Your task to perform on an android device: clear history in the chrome app Image 0: 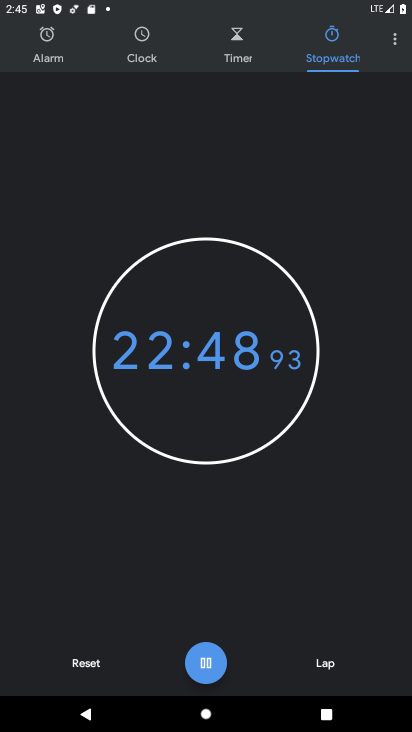
Step 0: press home button
Your task to perform on an android device: clear history in the chrome app Image 1: 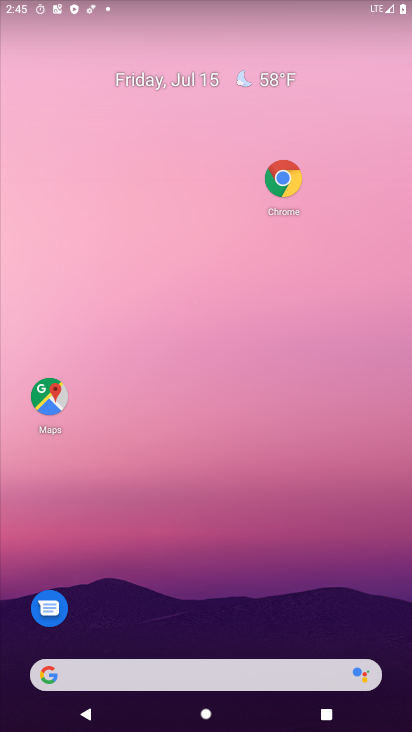
Step 1: drag from (277, 597) to (215, 96)
Your task to perform on an android device: clear history in the chrome app Image 2: 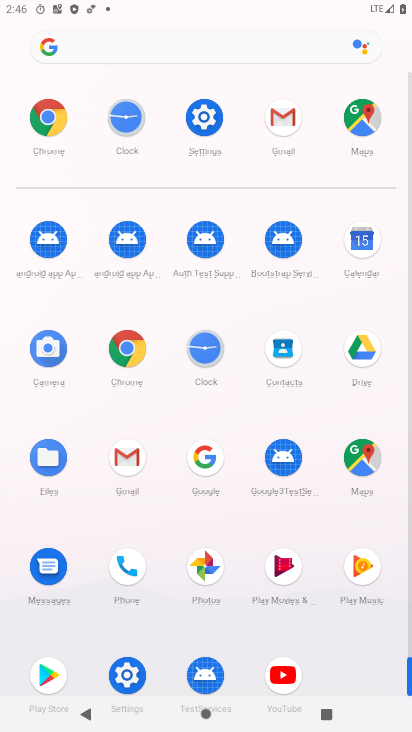
Step 2: click (46, 118)
Your task to perform on an android device: clear history in the chrome app Image 3: 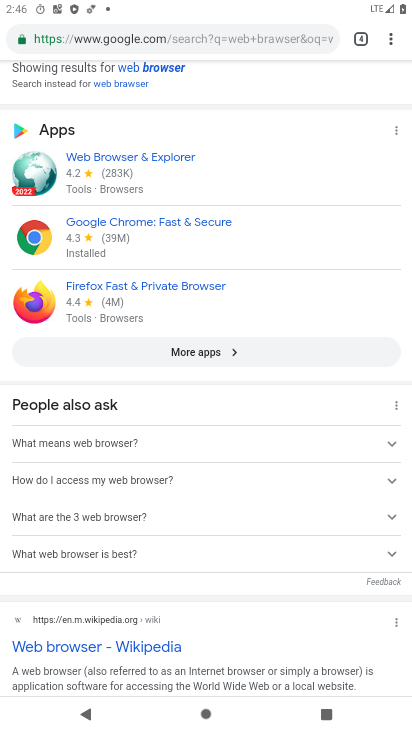
Step 3: click (389, 34)
Your task to perform on an android device: clear history in the chrome app Image 4: 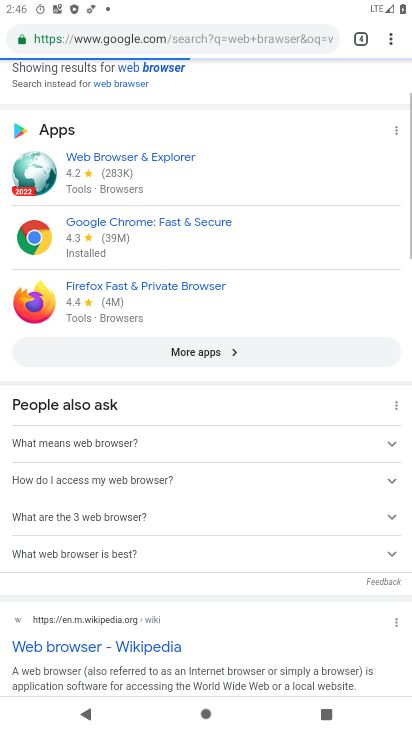
Step 4: drag from (389, 34) to (262, 214)
Your task to perform on an android device: clear history in the chrome app Image 5: 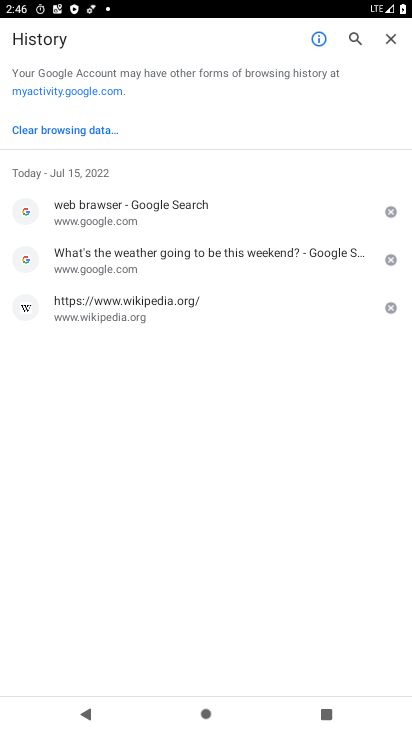
Step 5: click (12, 199)
Your task to perform on an android device: clear history in the chrome app Image 6: 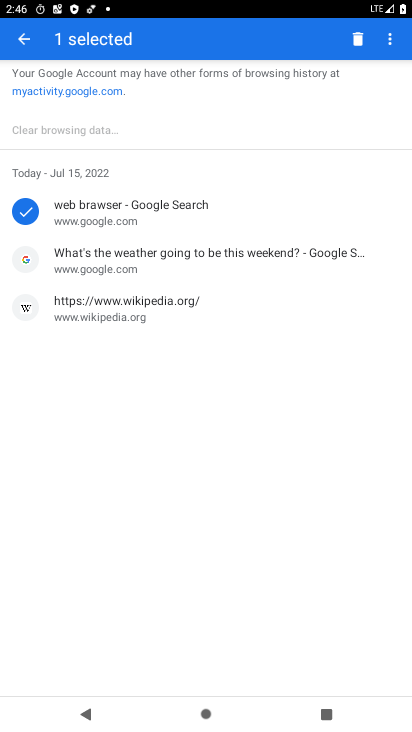
Step 6: click (21, 256)
Your task to perform on an android device: clear history in the chrome app Image 7: 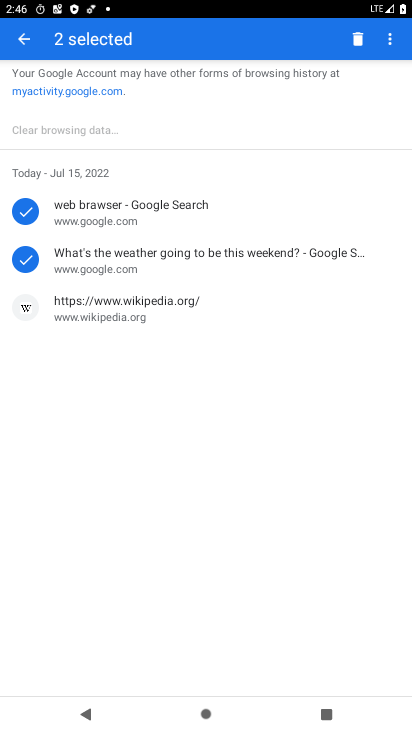
Step 7: click (29, 311)
Your task to perform on an android device: clear history in the chrome app Image 8: 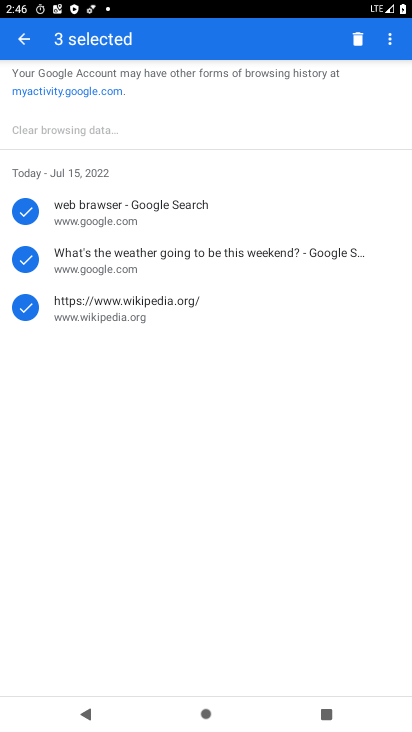
Step 8: click (365, 32)
Your task to perform on an android device: clear history in the chrome app Image 9: 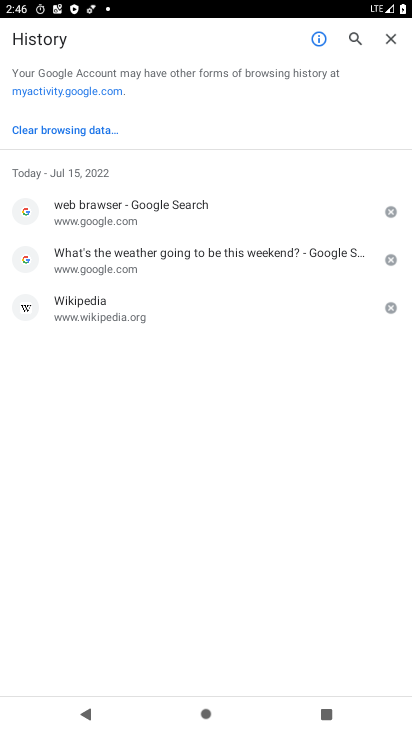
Step 9: click (36, 210)
Your task to perform on an android device: clear history in the chrome app Image 10: 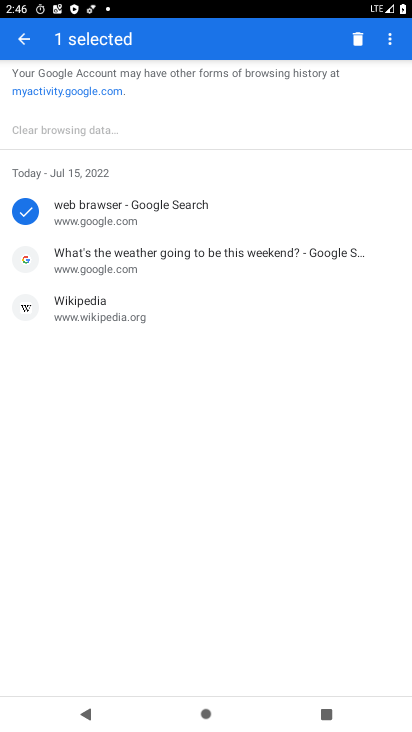
Step 10: click (25, 262)
Your task to perform on an android device: clear history in the chrome app Image 11: 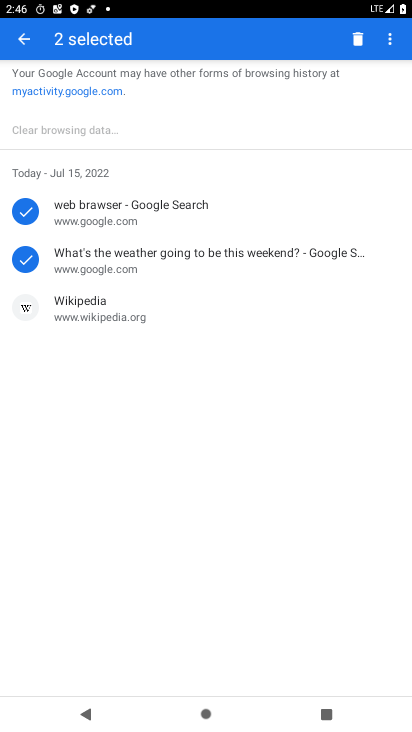
Step 11: click (25, 297)
Your task to perform on an android device: clear history in the chrome app Image 12: 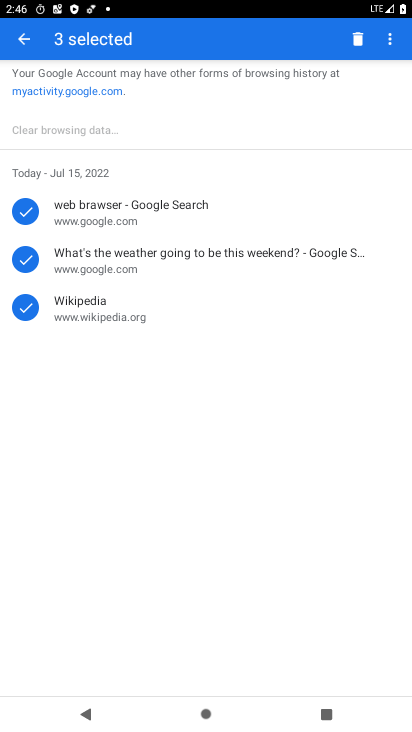
Step 12: click (355, 27)
Your task to perform on an android device: clear history in the chrome app Image 13: 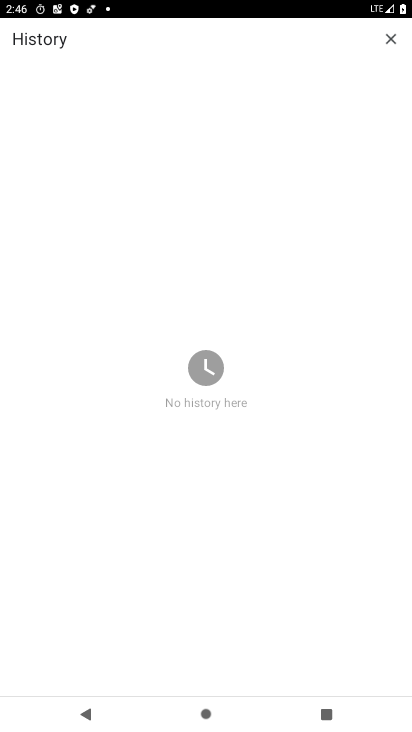
Step 13: task complete